Your task to perform on an android device: Go to Android settings Image 0: 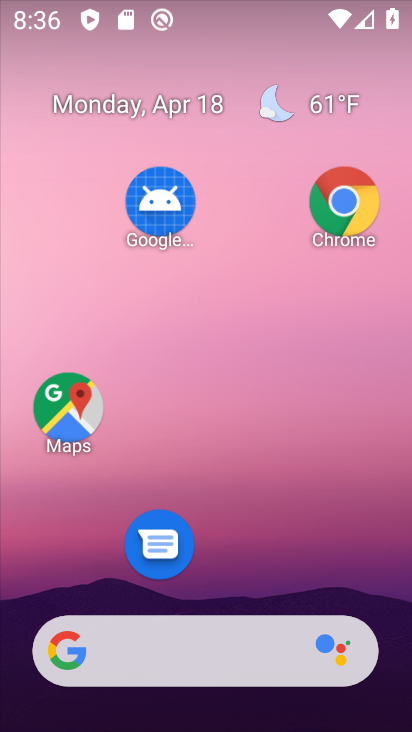
Step 0: drag from (234, 601) to (139, 7)
Your task to perform on an android device: Go to Android settings Image 1: 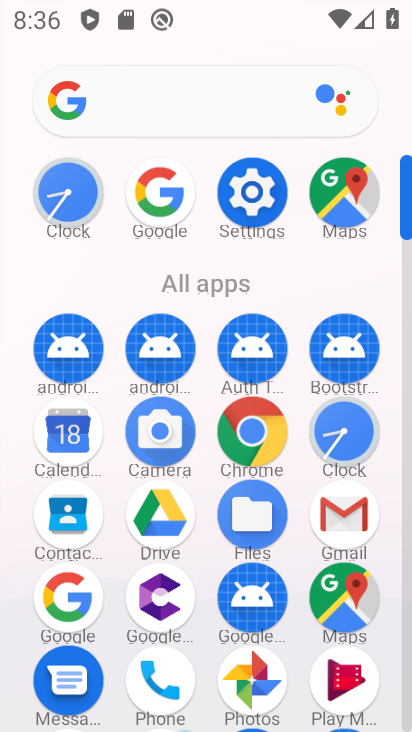
Step 1: click (234, 192)
Your task to perform on an android device: Go to Android settings Image 2: 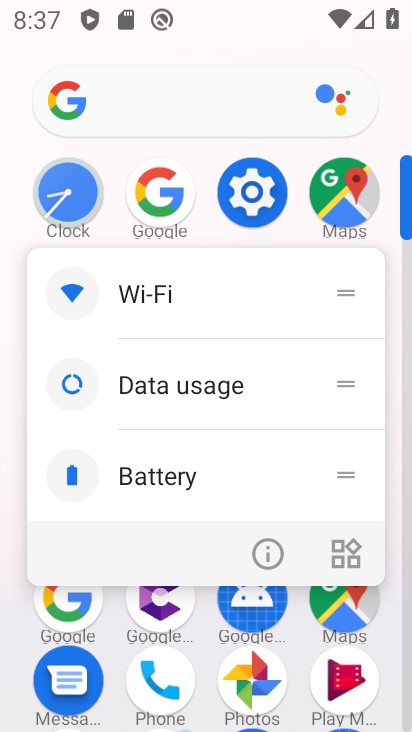
Step 2: click (242, 192)
Your task to perform on an android device: Go to Android settings Image 3: 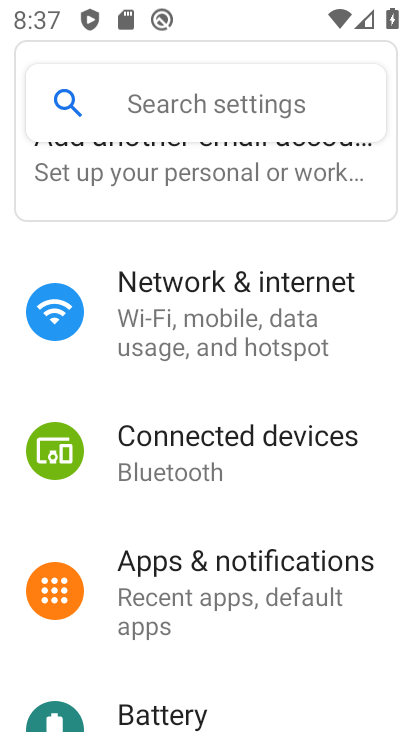
Step 3: task complete